Your task to perform on an android device: Open display settings Image 0: 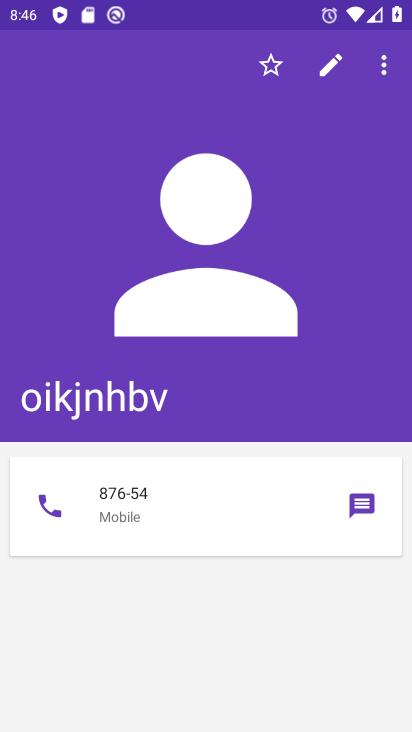
Step 0: press home button
Your task to perform on an android device: Open display settings Image 1: 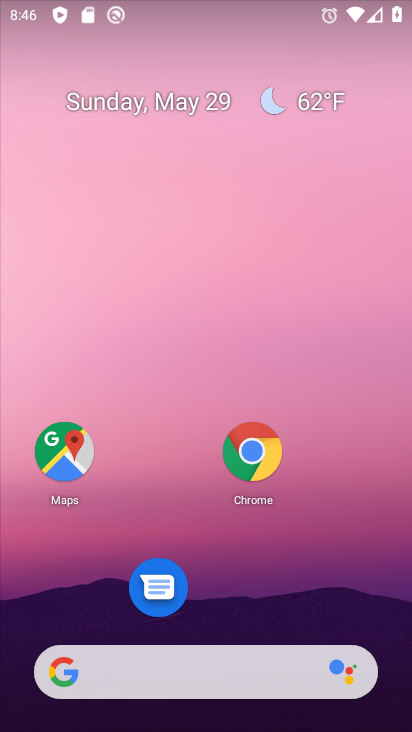
Step 1: drag from (235, 593) to (296, 198)
Your task to perform on an android device: Open display settings Image 2: 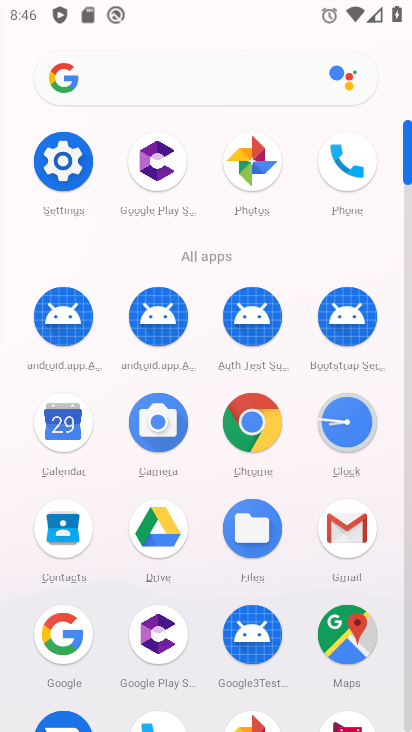
Step 2: click (41, 160)
Your task to perform on an android device: Open display settings Image 3: 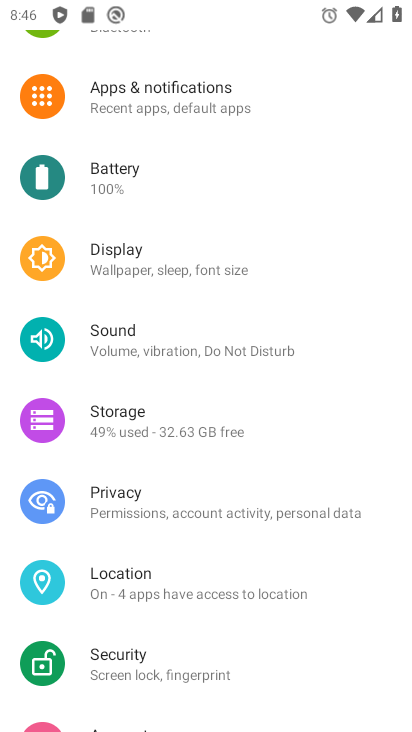
Step 3: click (92, 281)
Your task to perform on an android device: Open display settings Image 4: 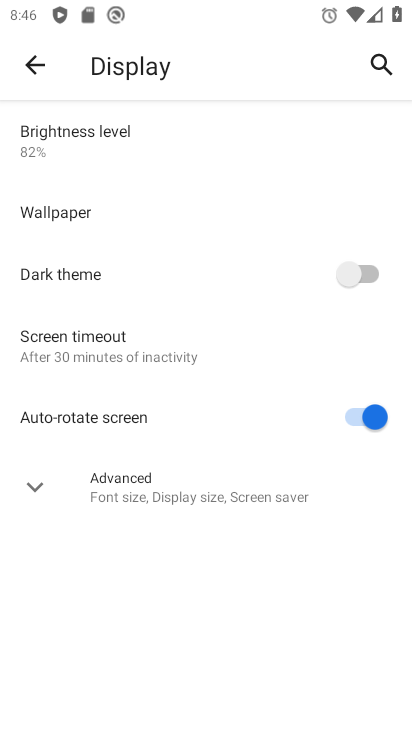
Step 4: task complete